Your task to perform on an android device: What's the weather? Image 0: 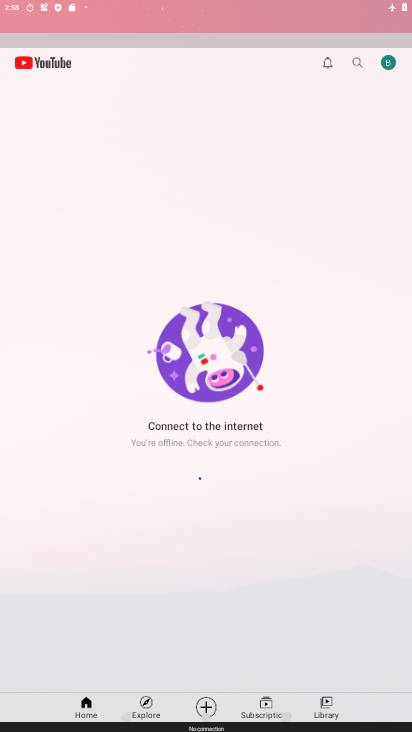
Step 0: click (336, 13)
Your task to perform on an android device: What's the weather? Image 1: 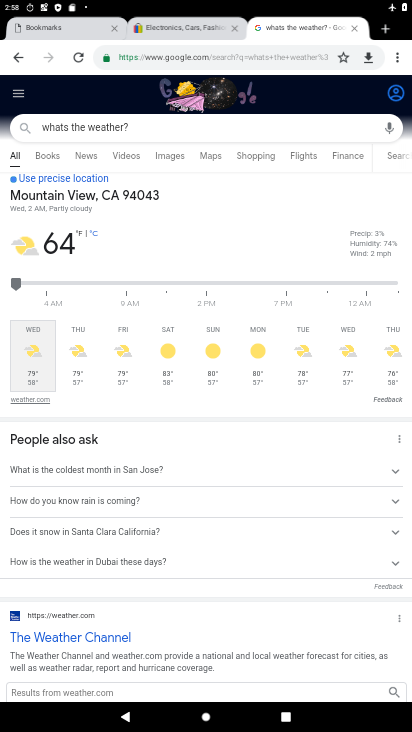
Step 1: press home button
Your task to perform on an android device: What's the weather? Image 2: 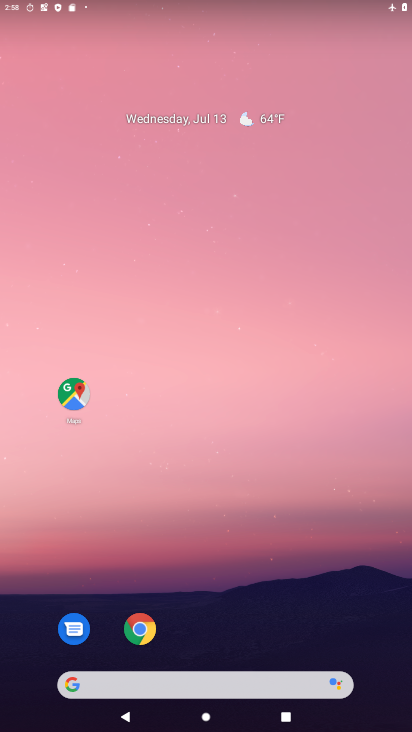
Step 2: drag from (214, 650) to (268, 12)
Your task to perform on an android device: What's the weather? Image 3: 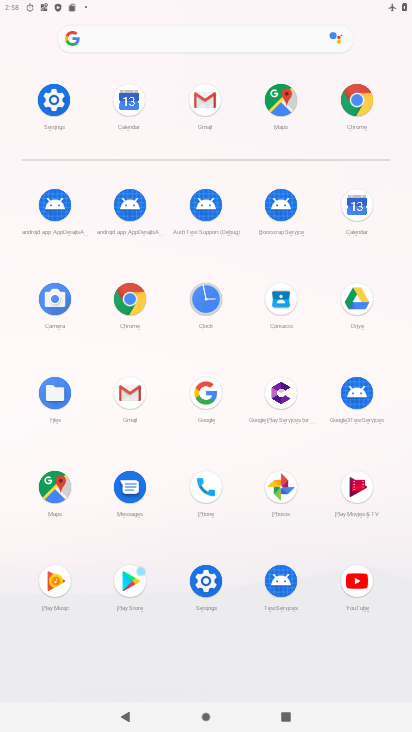
Step 3: click (132, 292)
Your task to perform on an android device: What's the weather? Image 4: 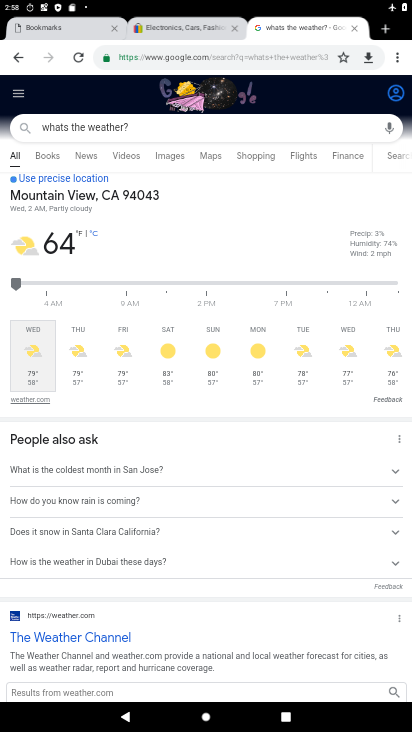
Step 4: task complete